Your task to perform on an android device: turn pop-ups off in chrome Image 0: 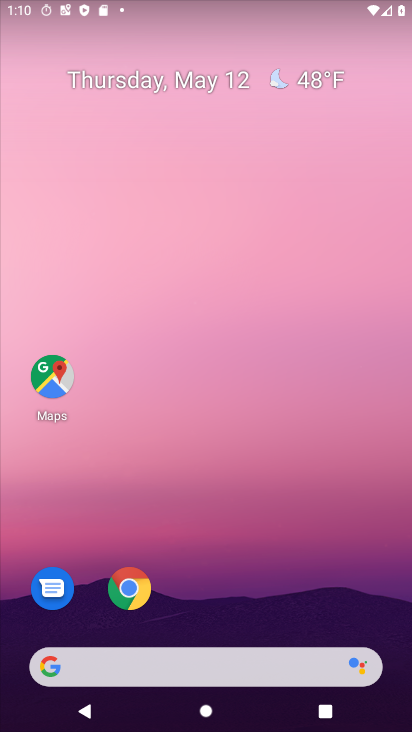
Step 0: click (129, 587)
Your task to perform on an android device: turn pop-ups off in chrome Image 1: 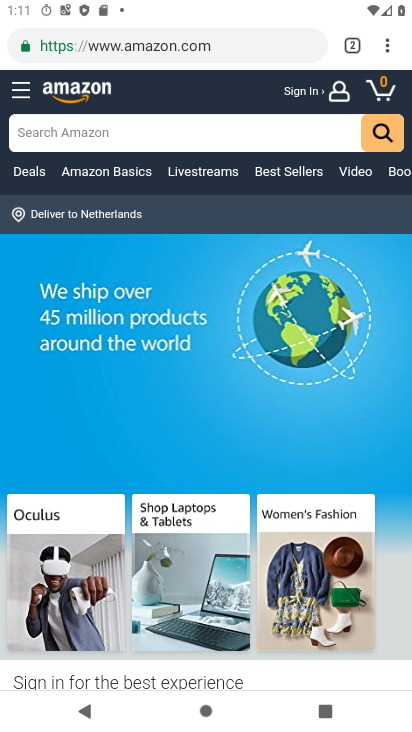
Step 1: click (376, 50)
Your task to perform on an android device: turn pop-ups off in chrome Image 2: 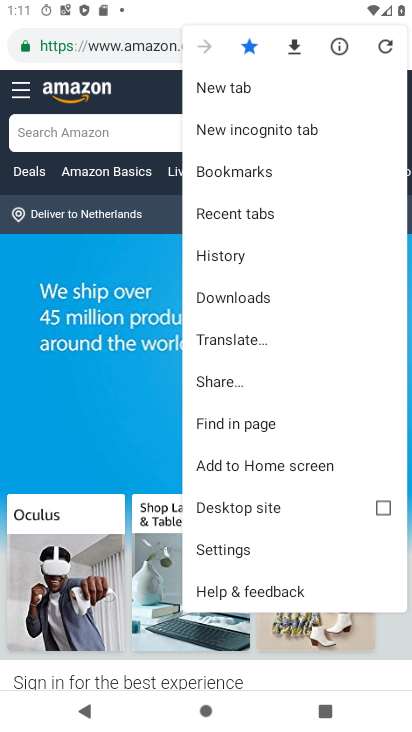
Step 2: click (251, 560)
Your task to perform on an android device: turn pop-ups off in chrome Image 3: 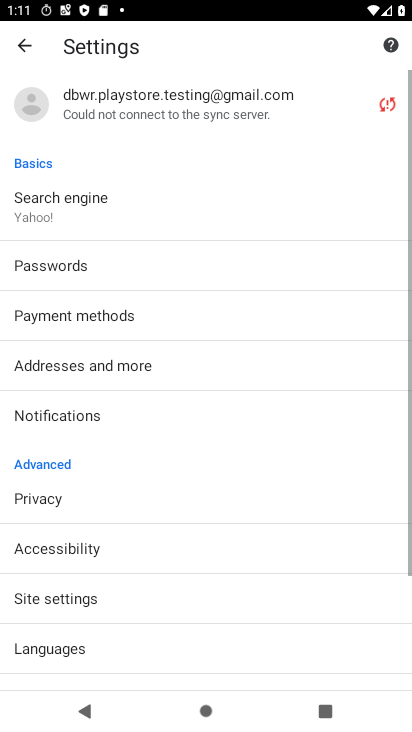
Step 3: drag from (177, 622) to (183, 248)
Your task to perform on an android device: turn pop-ups off in chrome Image 4: 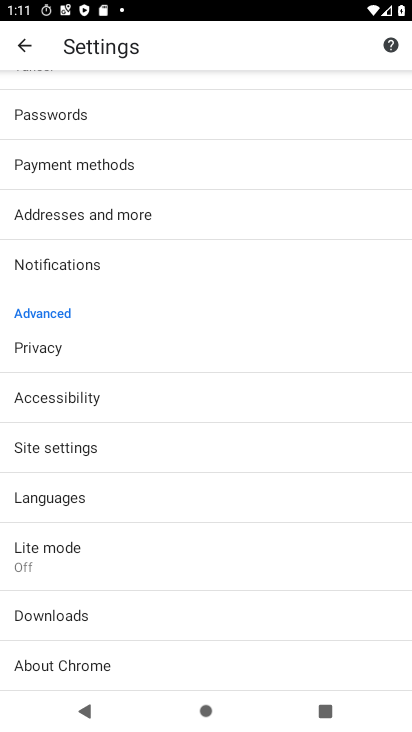
Step 4: click (72, 453)
Your task to perform on an android device: turn pop-ups off in chrome Image 5: 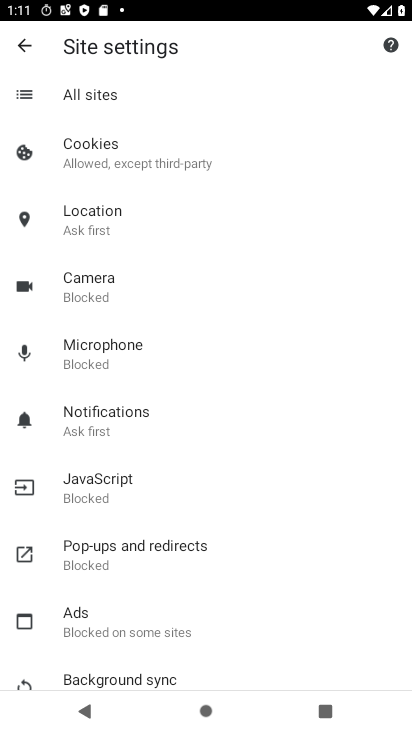
Step 5: click (124, 562)
Your task to perform on an android device: turn pop-ups off in chrome Image 6: 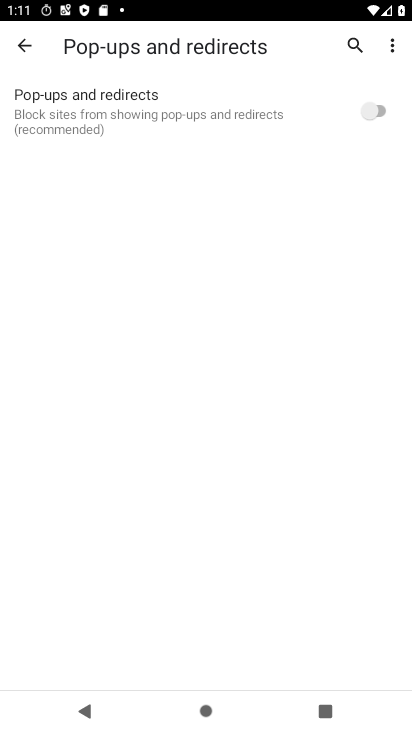
Step 6: task complete